Your task to perform on an android device: toggle translation in the chrome app Image 0: 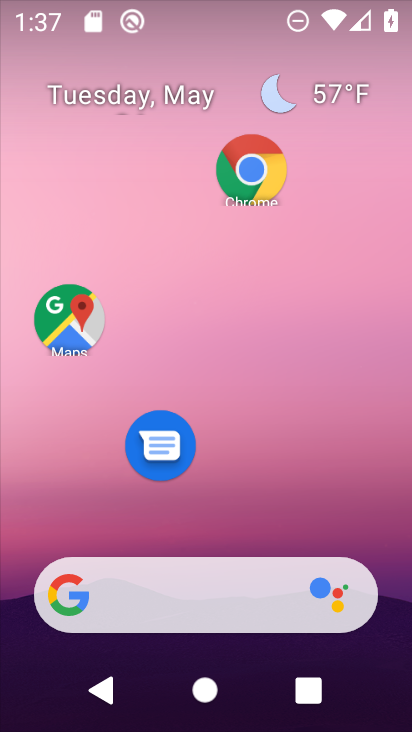
Step 0: drag from (220, 728) to (237, 89)
Your task to perform on an android device: toggle translation in the chrome app Image 1: 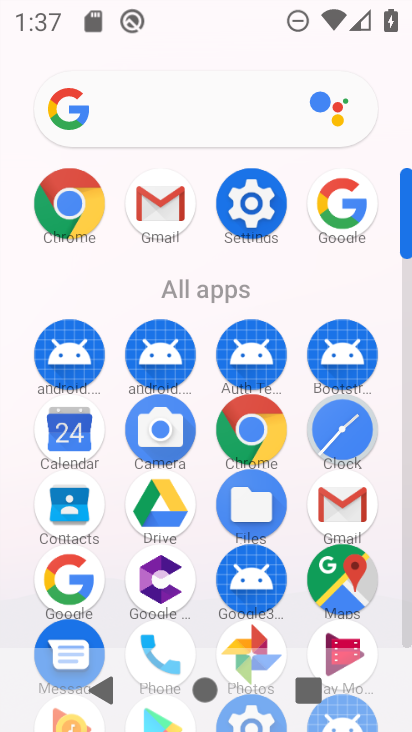
Step 1: click (250, 424)
Your task to perform on an android device: toggle translation in the chrome app Image 2: 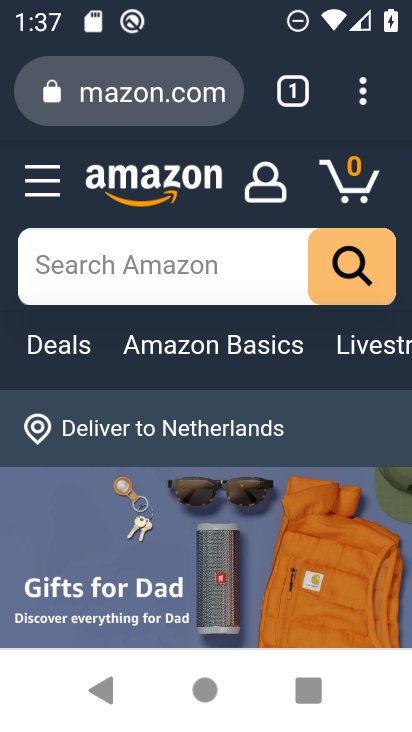
Step 2: click (363, 103)
Your task to perform on an android device: toggle translation in the chrome app Image 3: 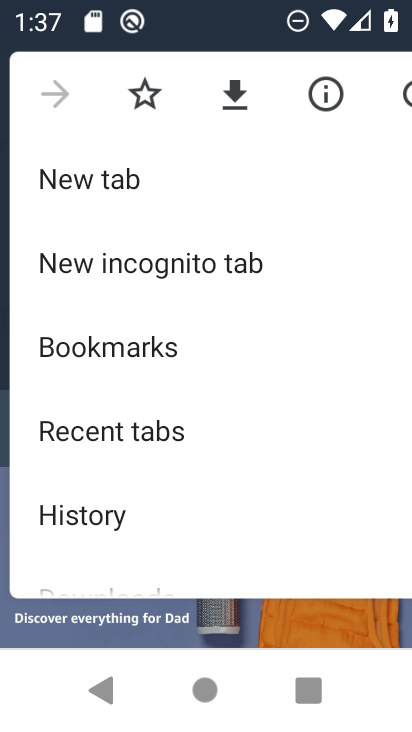
Step 3: drag from (126, 511) to (127, 158)
Your task to perform on an android device: toggle translation in the chrome app Image 4: 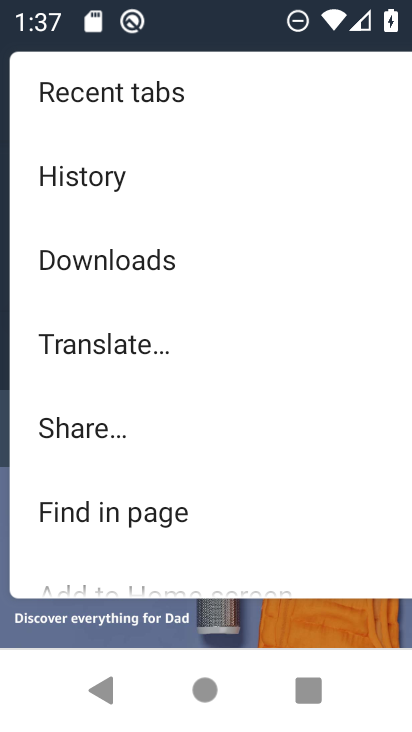
Step 4: drag from (92, 551) to (126, 198)
Your task to perform on an android device: toggle translation in the chrome app Image 5: 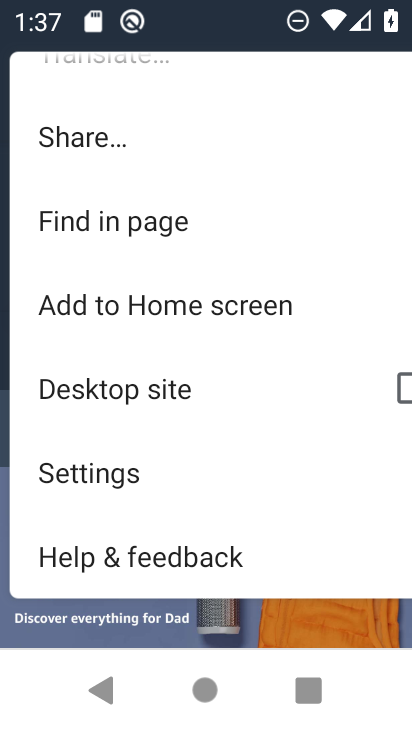
Step 5: click (93, 473)
Your task to perform on an android device: toggle translation in the chrome app Image 6: 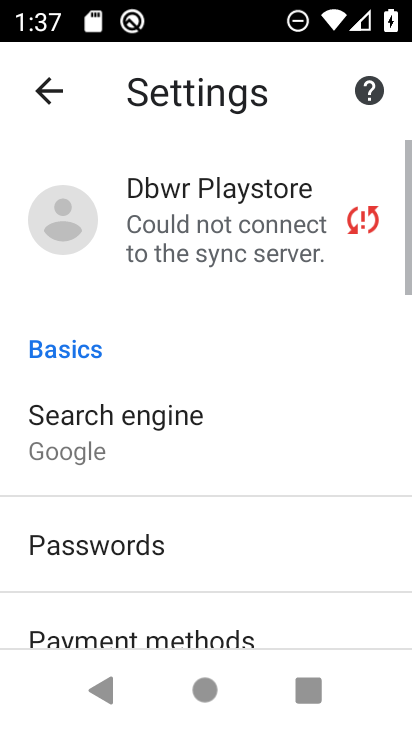
Step 6: drag from (120, 636) to (132, 331)
Your task to perform on an android device: toggle translation in the chrome app Image 7: 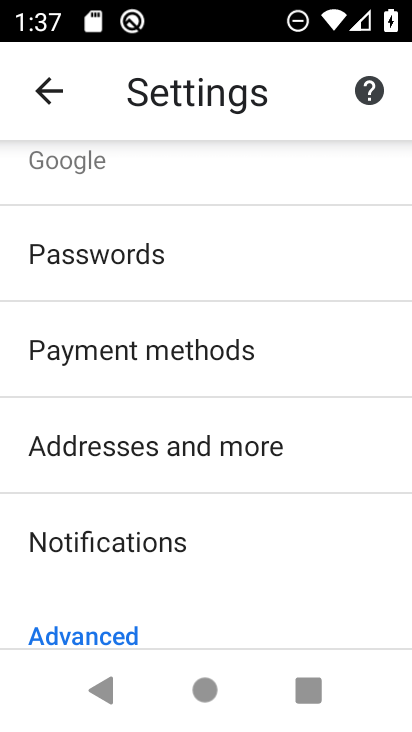
Step 7: drag from (149, 606) to (158, 273)
Your task to perform on an android device: toggle translation in the chrome app Image 8: 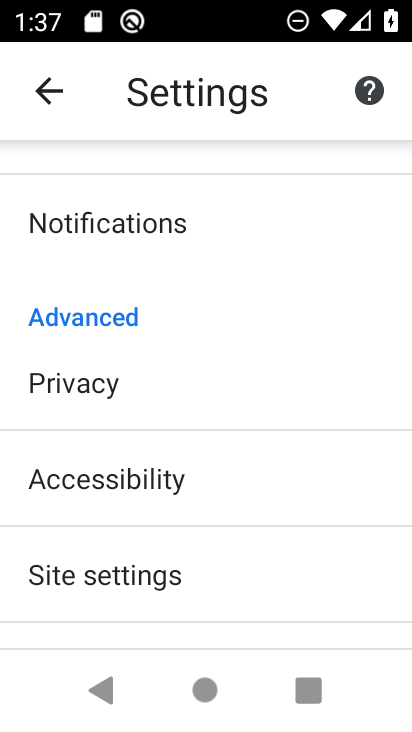
Step 8: drag from (130, 626) to (152, 282)
Your task to perform on an android device: toggle translation in the chrome app Image 9: 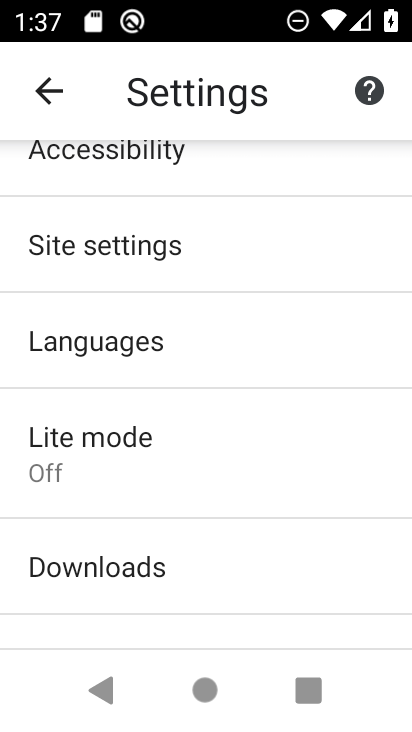
Step 9: click (122, 334)
Your task to perform on an android device: toggle translation in the chrome app Image 10: 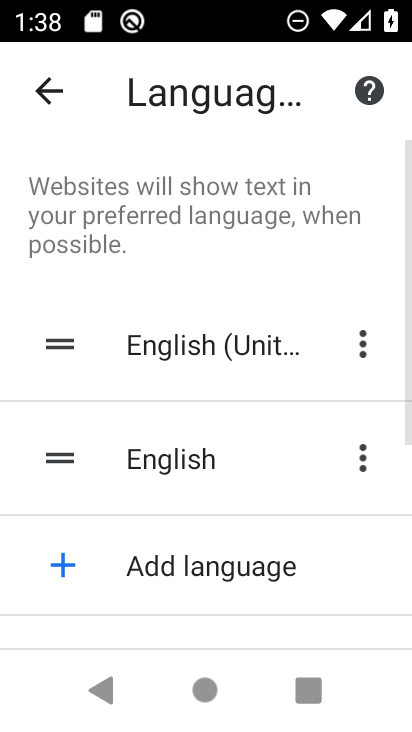
Step 10: drag from (225, 604) to (236, 222)
Your task to perform on an android device: toggle translation in the chrome app Image 11: 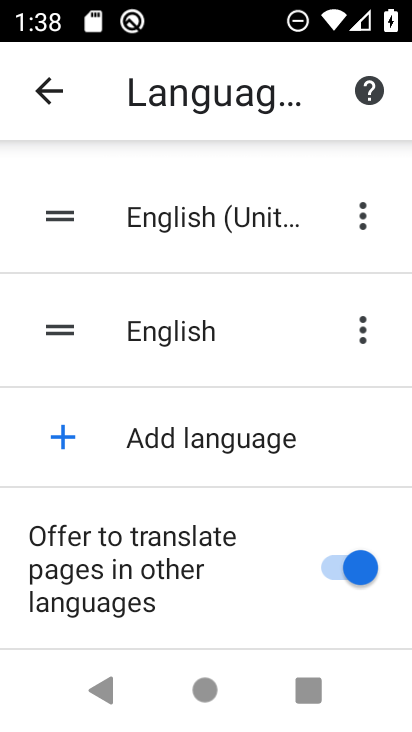
Step 11: click (331, 561)
Your task to perform on an android device: toggle translation in the chrome app Image 12: 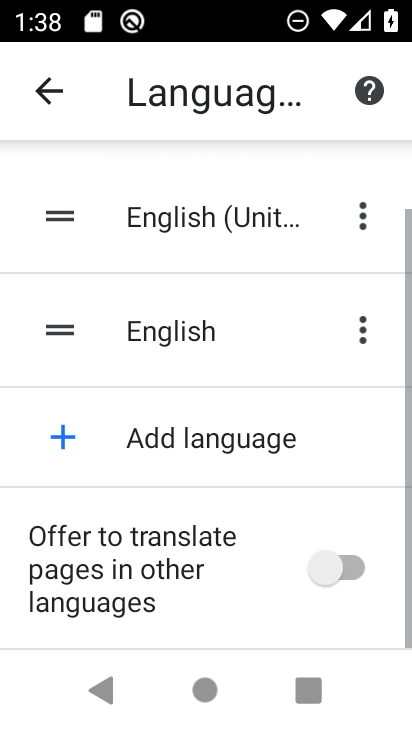
Step 12: task complete